Your task to perform on an android device: Go to wifi settings Image 0: 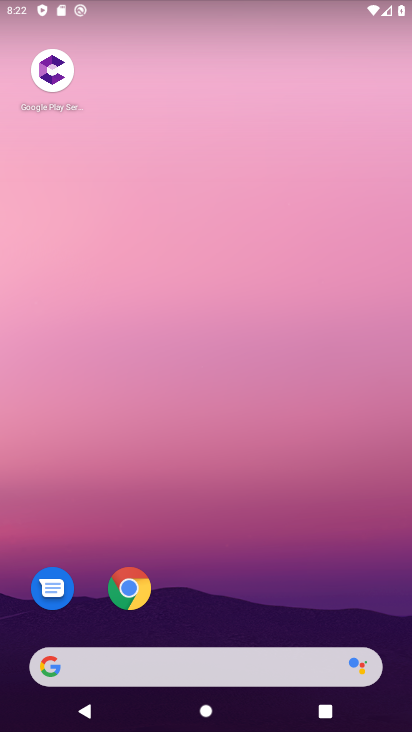
Step 0: drag from (207, 634) to (360, 702)
Your task to perform on an android device: Go to wifi settings Image 1: 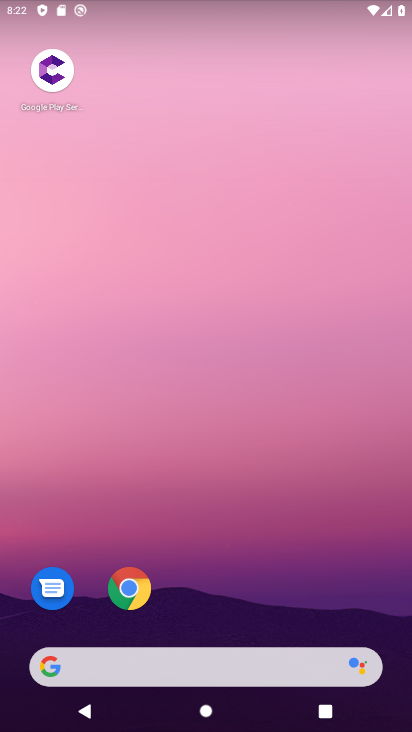
Step 1: click (208, 671)
Your task to perform on an android device: Go to wifi settings Image 2: 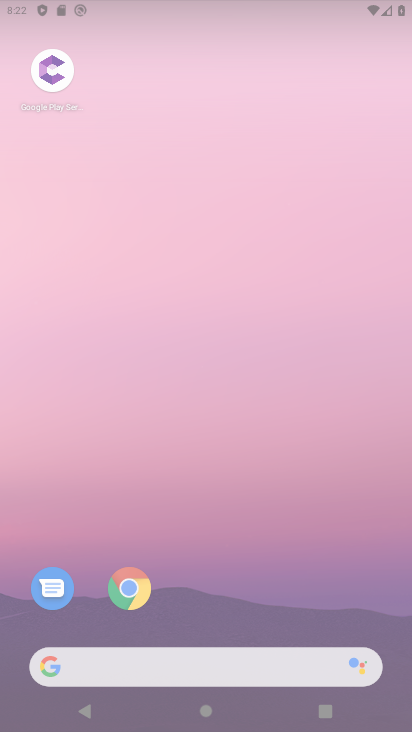
Step 2: drag from (202, 629) to (233, 191)
Your task to perform on an android device: Go to wifi settings Image 3: 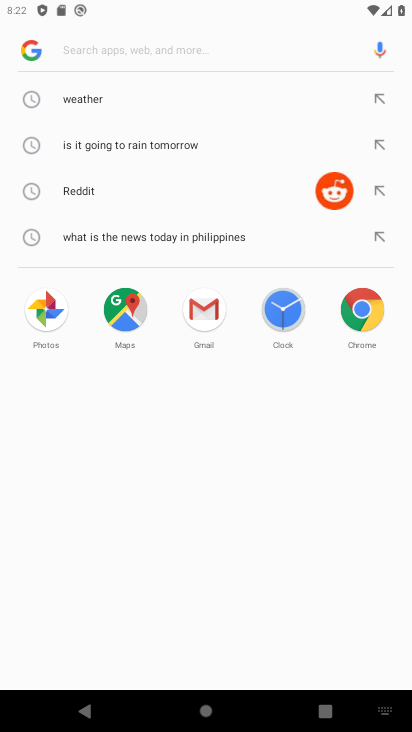
Step 3: press home button
Your task to perform on an android device: Go to wifi settings Image 4: 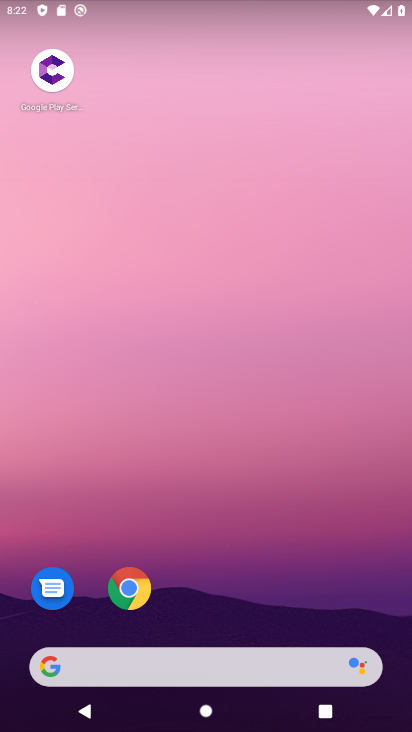
Step 4: drag from (215, 624) to (175, 70)
Your task to perform on an android device: Go to wifi settings Image 5: 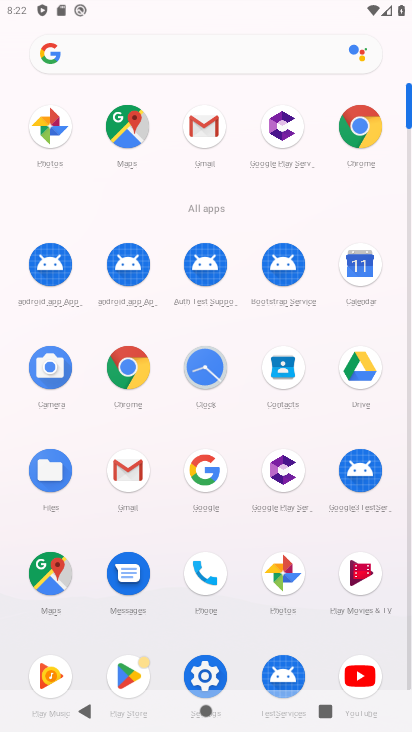
Step 5: click (196, 664)
Your task to perform on an android device: Go to wifi settings Image 6: 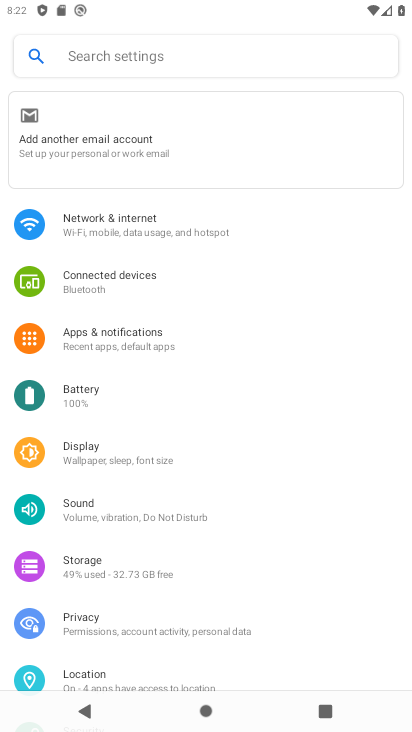
Step 6: click (103, 227)
Your task to perform on an android device: Go to wifi settings Image 7: 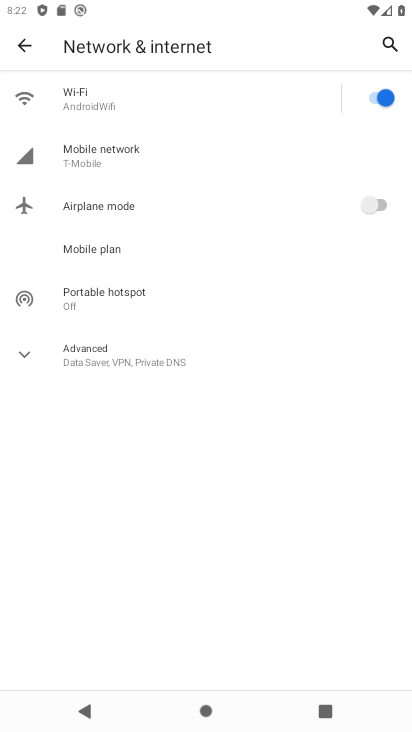
Step 7: click (163, 96)
Your task to perform on an android device: Go to wifi settings Image 8: 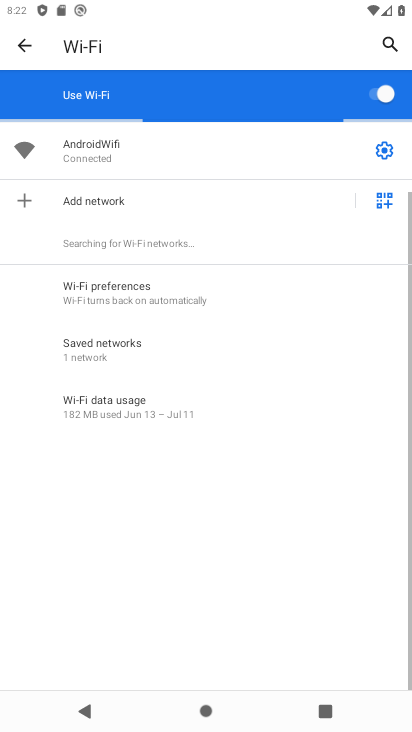
Step 8: task complete